Your task to perform on an android device: turn off priority inbox in the gmail app Image 0: 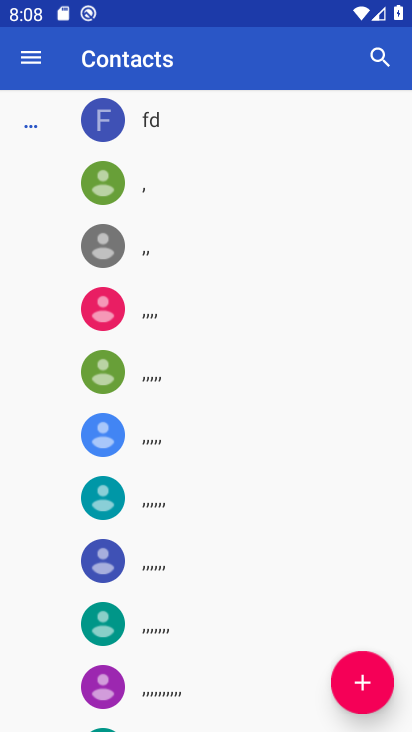
Step 0: press home button
Your task to perform on an android device: turn off priority inbox in the gmail app Image 1: 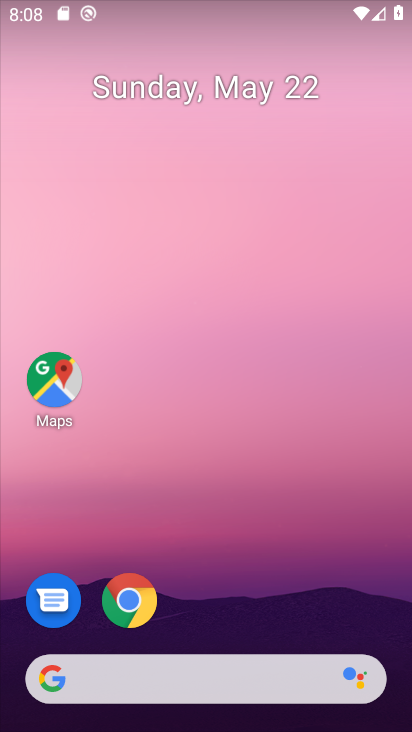
Step 1: drag from (173, 444) to (191, 308)
Your task to perform on an android device: turn off priority inbox in the gmail app Image 2: 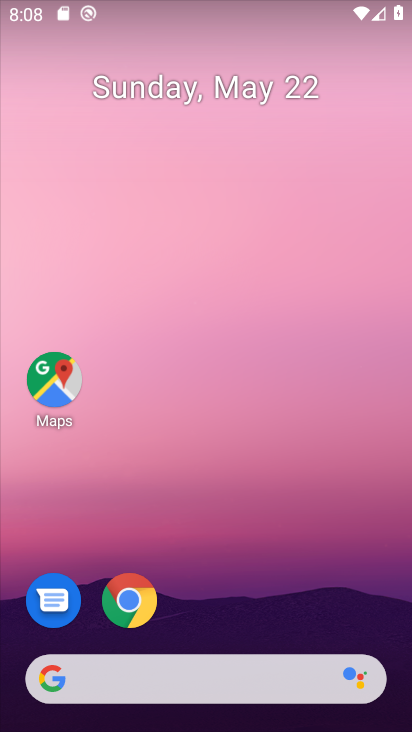
Step 2: drag from (275, 660) to (314, 167)
Your task to perform on an android device: turn off priority inbox in the gmail app Image 3: 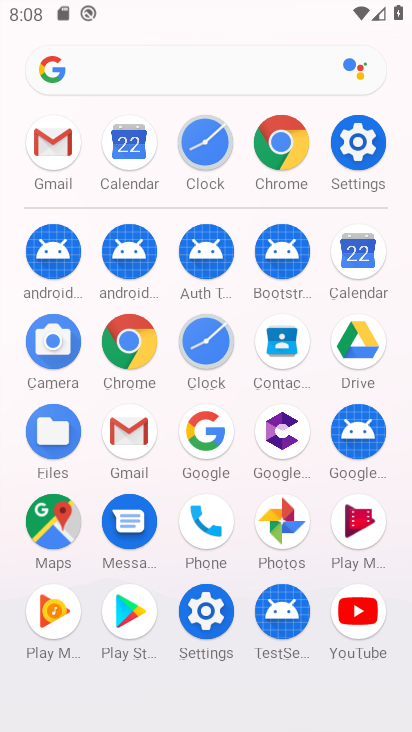
Step 3: click (51, 146)
Your task to perform on an android device: turn off priority inbox in the gmail app Image 4: 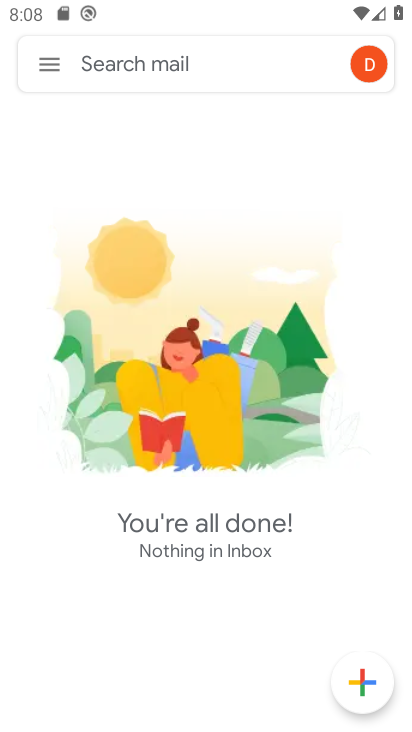
Step 4: click (57, 66)
Your task to perform on an android device: turn off priority inbox in the gmail app Image 5: 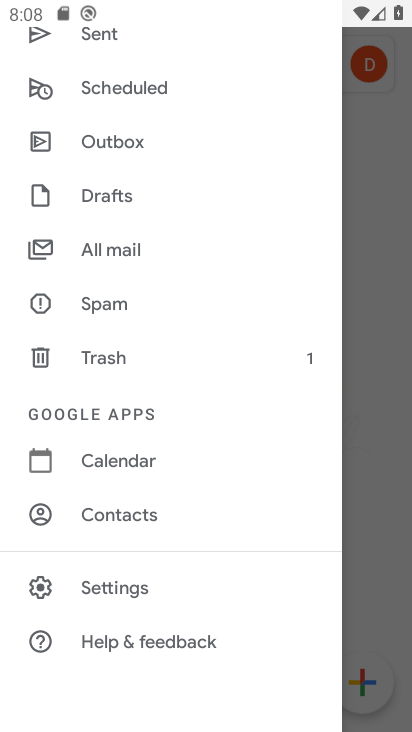
Step 5: click (121, 589)
Your task to perform on an android device: turn off priority inbox in the gmail app Image 6: 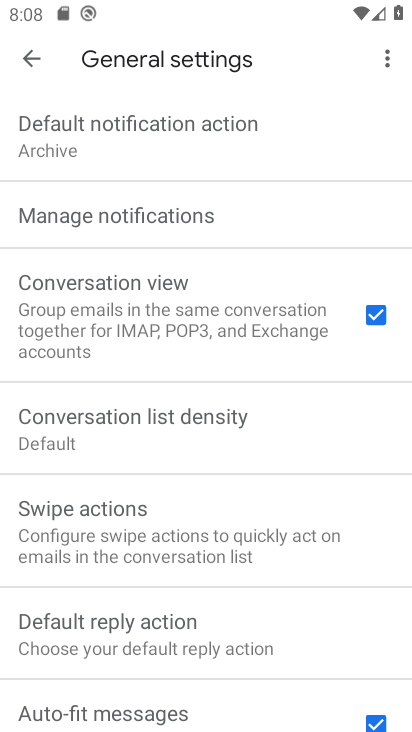
Step 6: click (37, 58)
Your task to perform on an android device: turn off priority inbox in the gmail app Image 7: 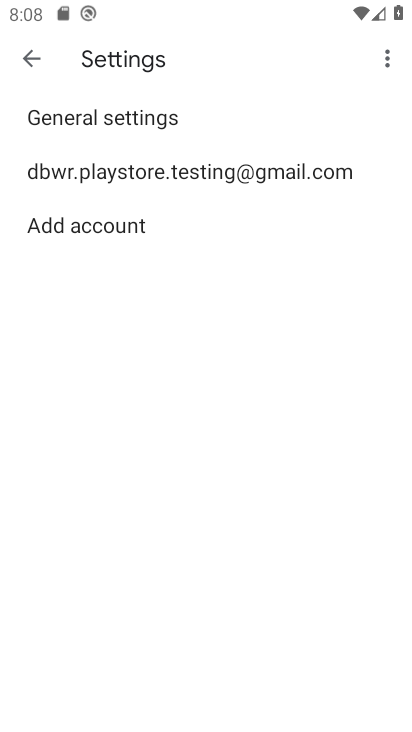
Step 7: click (114, 177)
Your task to perform on an android device: turn off priority inbox in the gmail app Image 8: 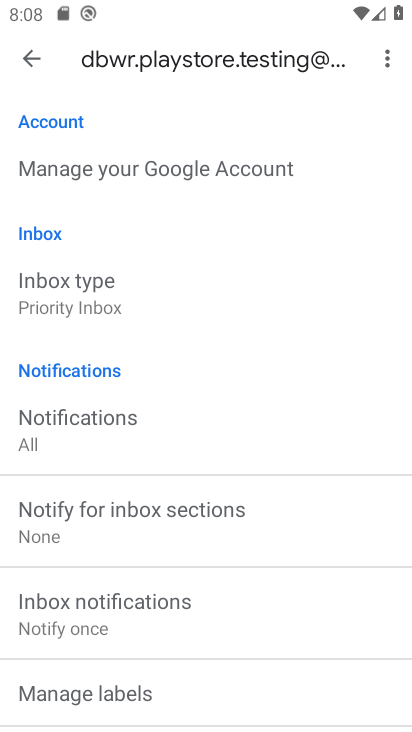
Step 8: click (107, 299)
Your task to perform on an android device: turn off priority inbox in the gmail app Image 9: 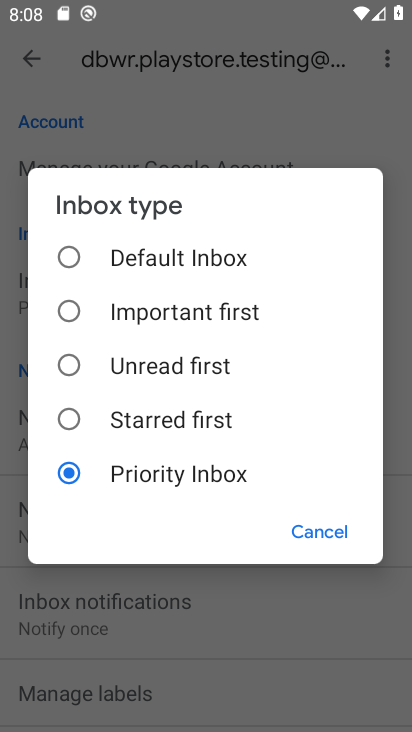
Step 9: click (121, 372)
Your task to perform on an android device: turn off priority inbox in the gmail app Image 10: 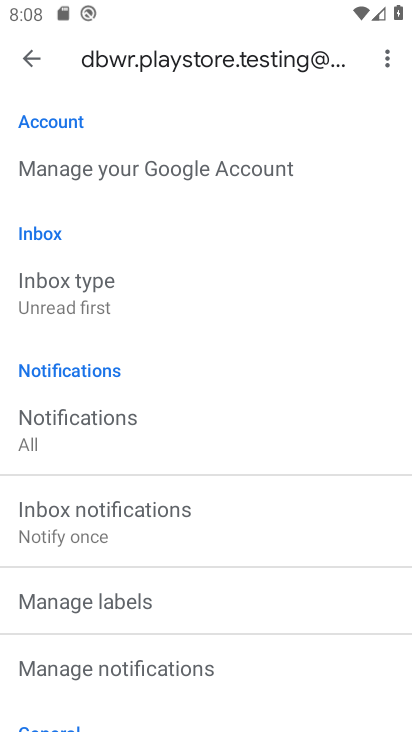
Step 10: task complete